Your task to perform on an android device: turn off improve location accuracy Image 0: 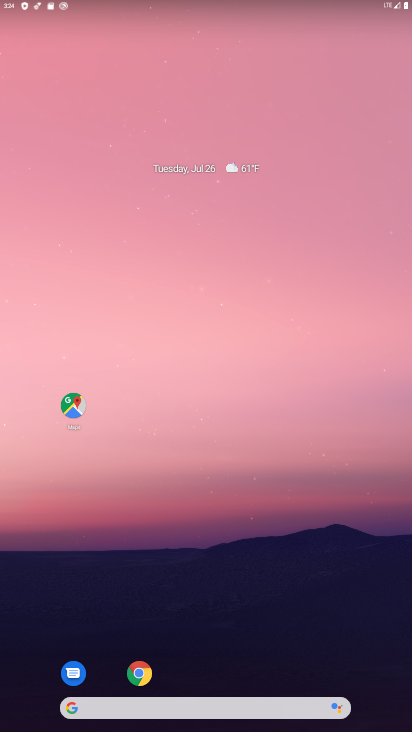
Step 0: press home button
Your task to perform on an android device: turn off improve location accuracy Image 1: 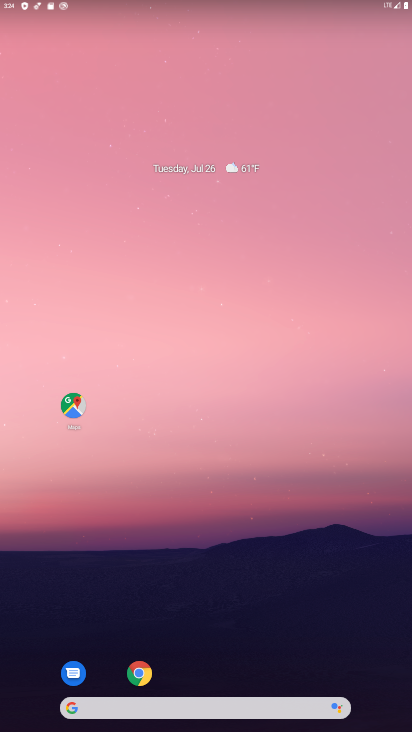
Step 1: drag from (217, 677) to (300, 7)
Your task to perform on an android device: turn off improve location accuracy Image 2: 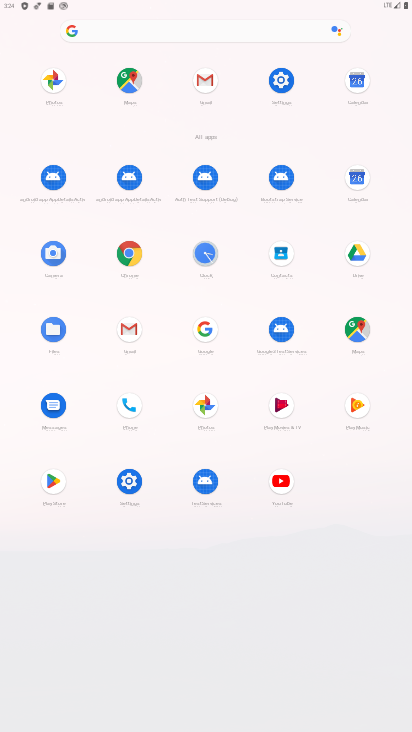
Step 2: click (279, 77)
Your task to perform on an android device: turn off improve location accuracy Image 3: 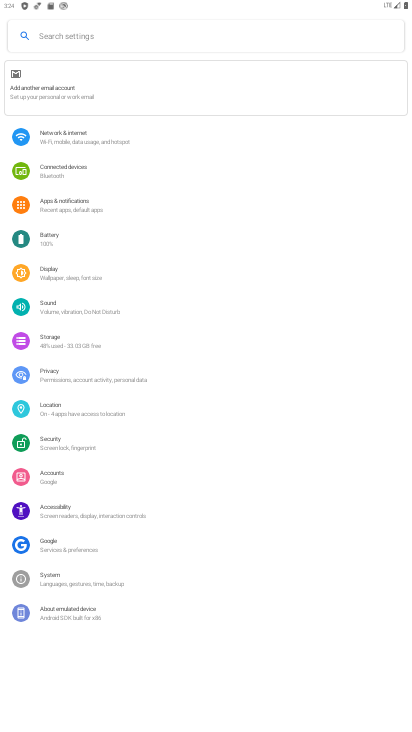
Step 3: click (75, 404)
Your task to perform on an android device: turn off improve location accuracy Image 4: 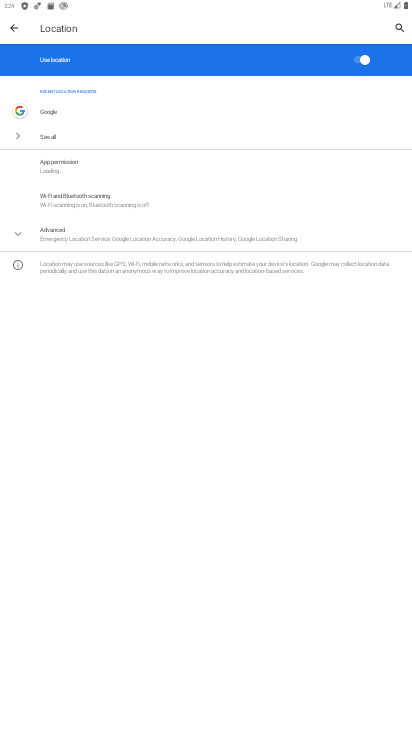
Step 4: click (19, 232)
Your task to perform on an android device: turn off improve location accuracy Image 5: 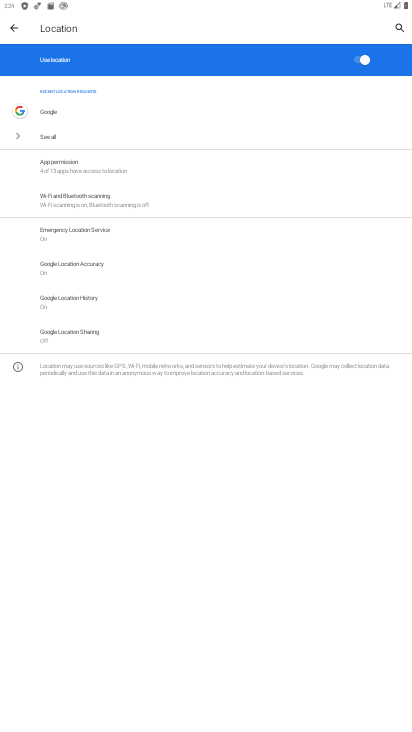
Step 5: click (83, 266)
Your task to perform on an android device: turn off improve location accuracy Image 6: 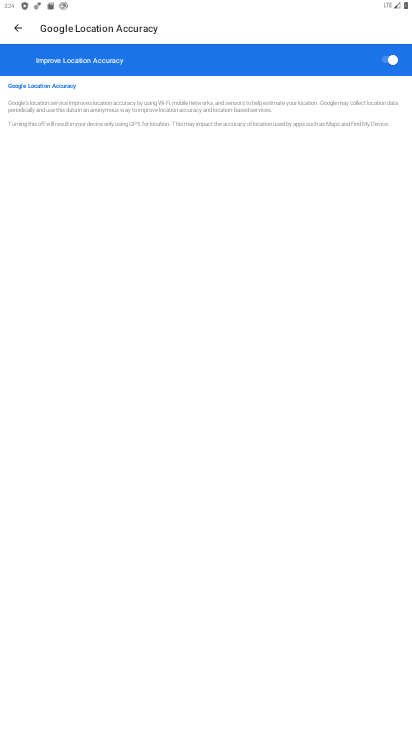
Step 6: click (386, 55)
Your task to perform on an android device: turn off improve location accuracy Image 7: 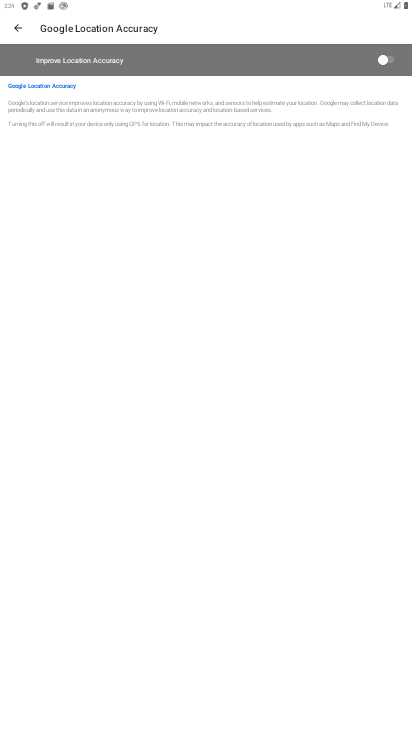
Step 7: task complete